Your task to perform on an android device: Turn on the flashlight Image 0: 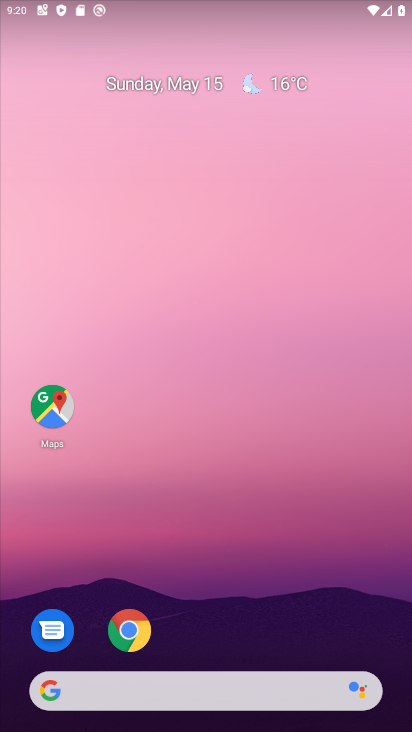
Step 0: drag from (204, 646) to (226, 344)
Your task to perform on an android device: Turn on the flashlight Image 1: 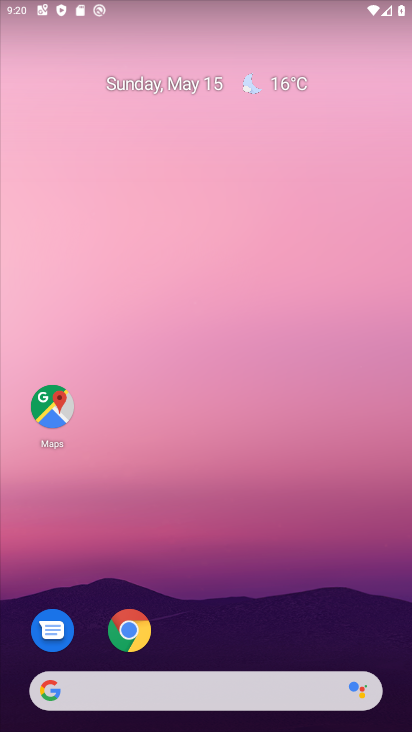
Step 1: drag from (207, 636) to (226, 307)
Your task to perform on an android device: Turn on the flashlight Image 2: 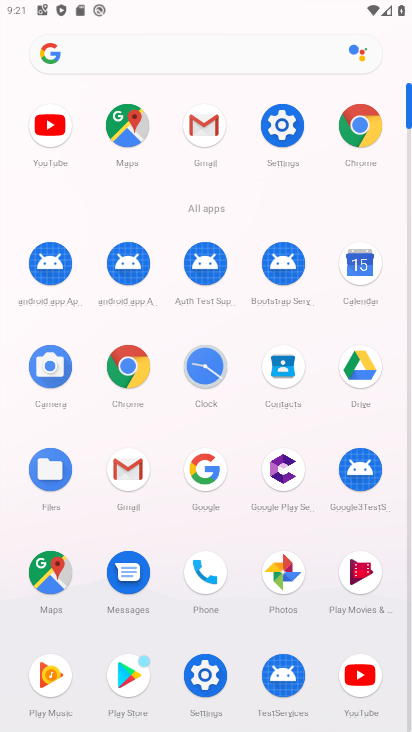
Step 2: click (286, 139)
Your task to perform on an android device: Turn on the flashlight Image 3: 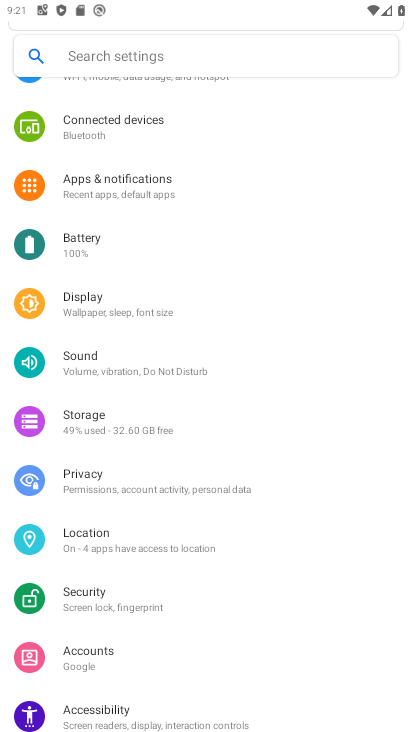
Step 3: task complete